Your task to perform on an android device: check android version Image 0: 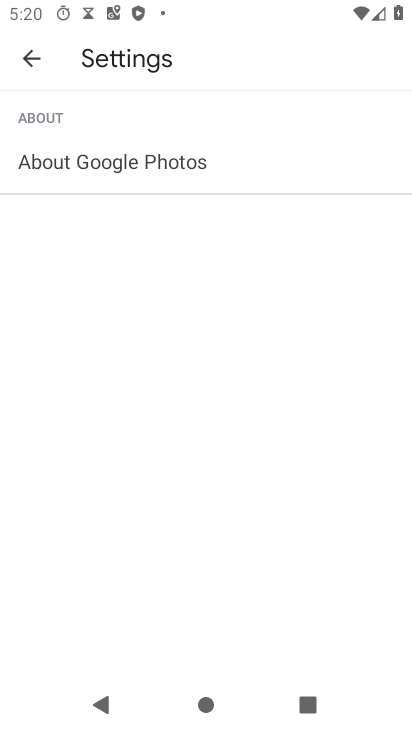
Step 0: press back button
Your task to perform on an android device: check android version Image 1: 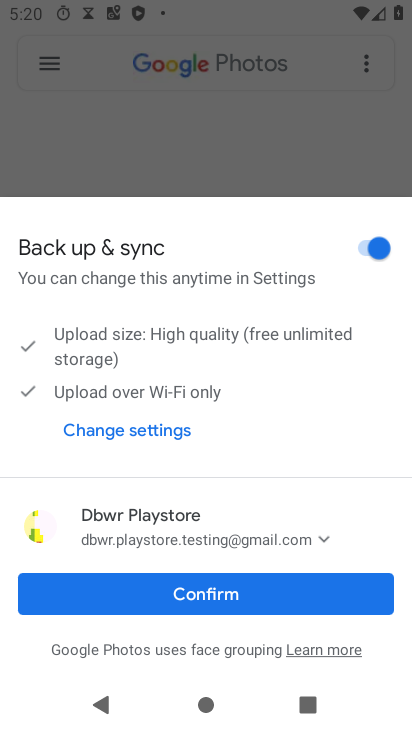
Step 1: press back button
Your task to perform on an android device: check android version Image 2: 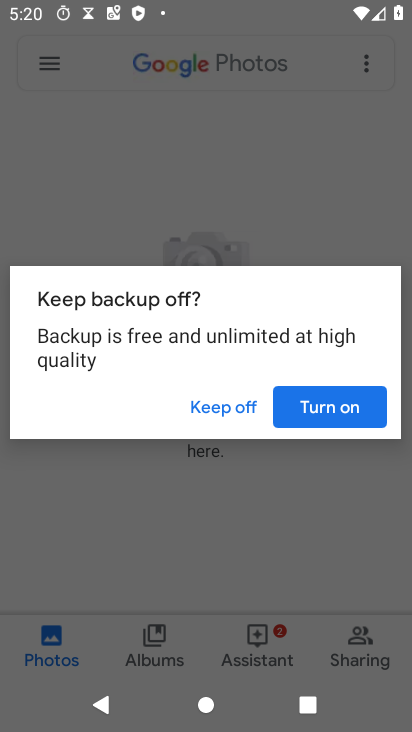
Step 2: press home button
Your task to perform on an android device: check android version Image 3: 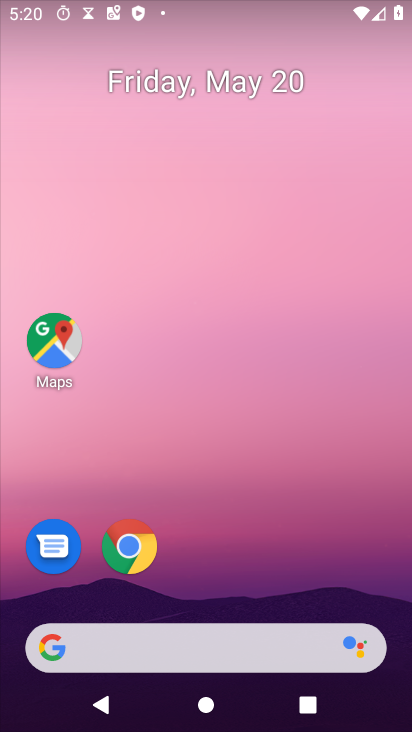
Step 3: drag from (223, 573) to (133, 164)
Your task to perform on an android device: check android version Image 4: 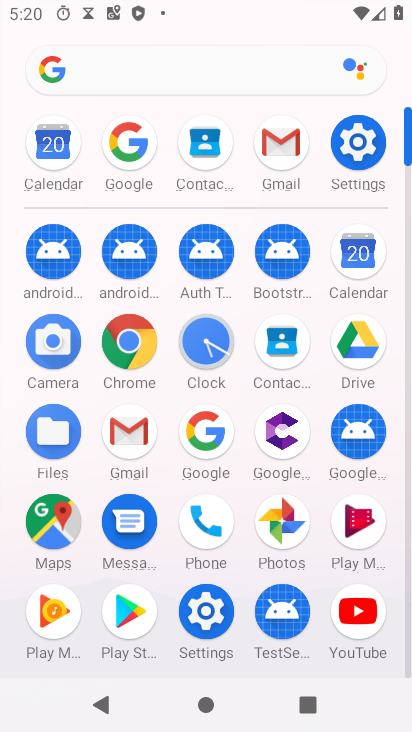
Step 4: click (205, 611)
Your task to perform on an android device: check android version Image 5: 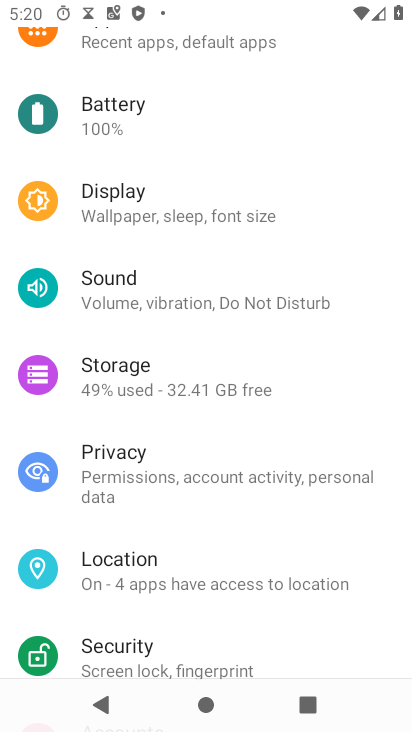
Step 5: drag from (179, 520) to (184, 415)
Your task to perform on an android device: check android version Image 6: 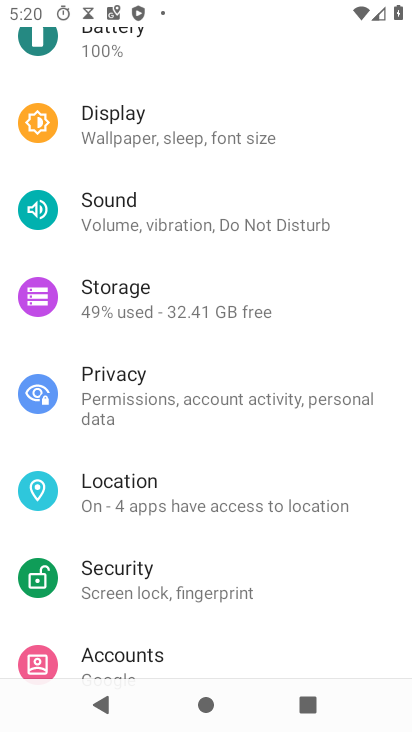
Step 6: drag from (218, 544) to (219, 428)
Your task to perform on an android device: check android version Image 7: 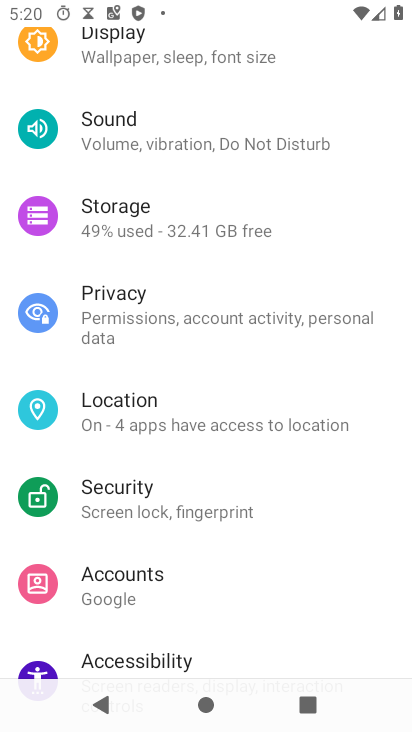
Step 7: drag from (150, 615) to (205, 519)
Your task to perform on an android device: check android version Image 8: 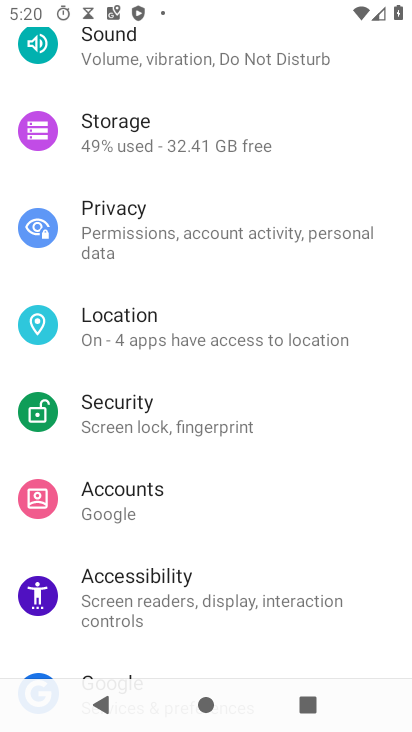
Step 8: drag from (159, 629) to (201, 523)
Your task to perform on an android device: check android version Image 9: 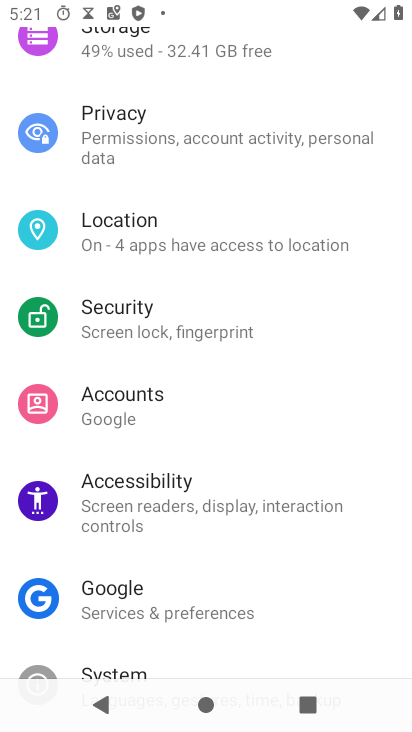
Step 9: drag from (167, 575) to (186, 498)
Your task to perform on an android device: check android version Image 10: 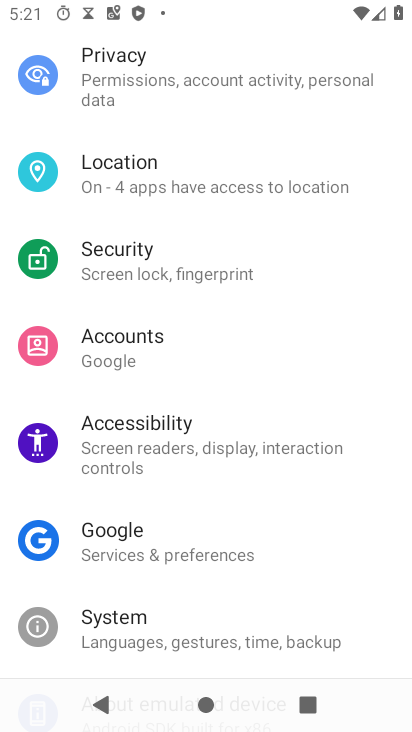
Step 10: drag from (150, 618) to (194, 524)
Your task to perform on an android device: check android version Image 11: 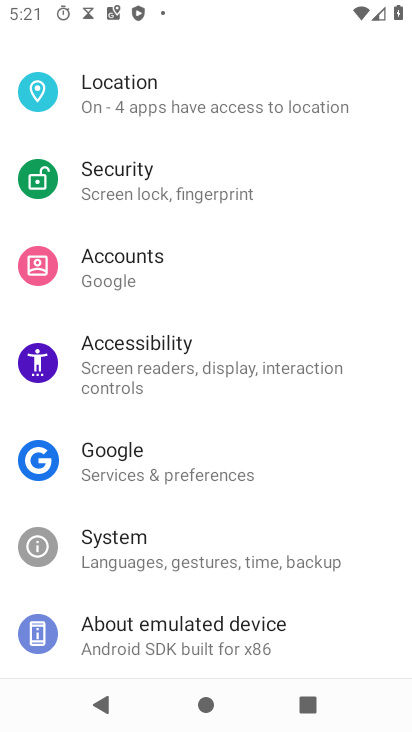
Step 11: click (139, 630)
Your task to perform on an android device: check android version Image 12: 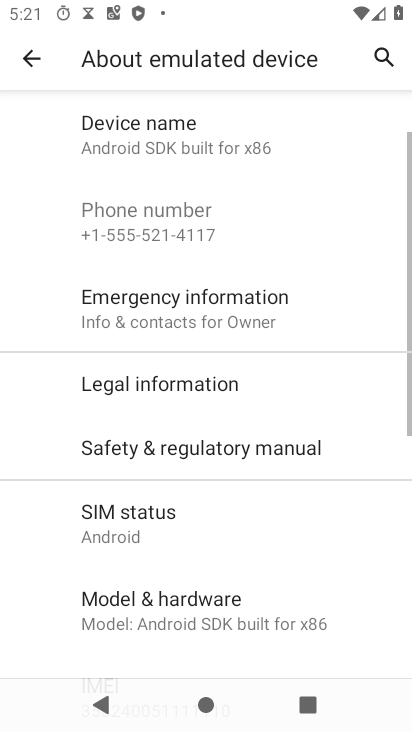
Step 12: drag from (184, 543) to (219, 444)
Your task to perform on an android device: check android version Image 13: 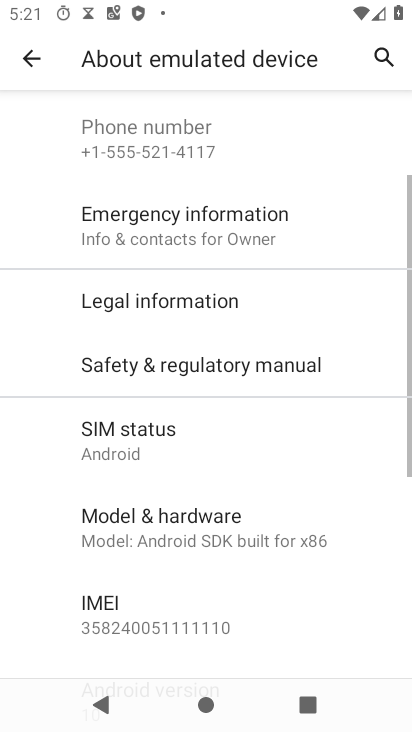
Step 13: drag from (159, 587) to (205, 469)
Your task to perform on an android device: check android version Image 14: 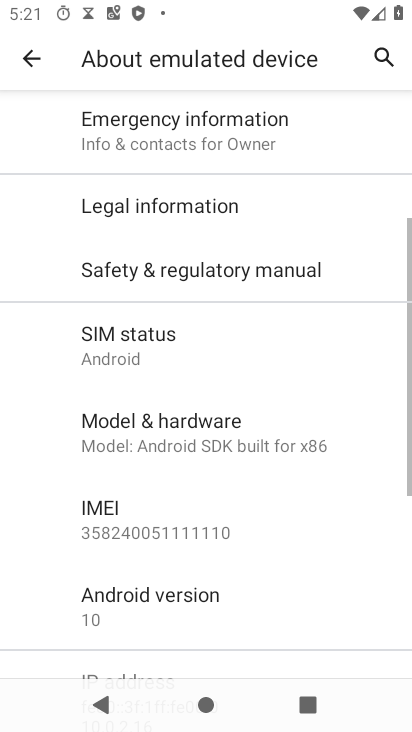
Step 14: click (162, 597)
Your task to perform on an android device: check android version Image 15: 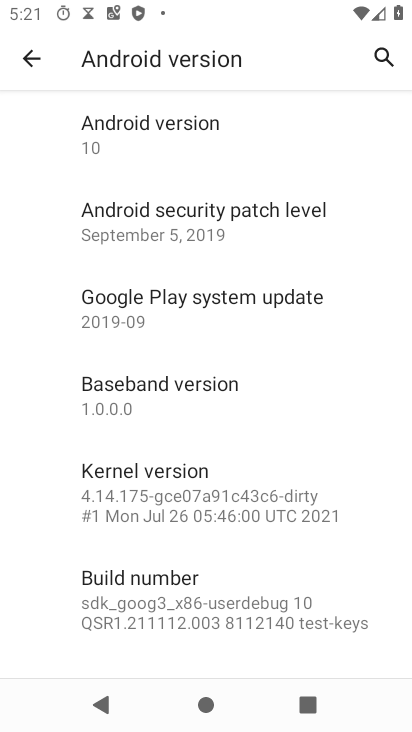
Step 15: task complete